Your task to perform on an android device: Open battery settings Image 0: 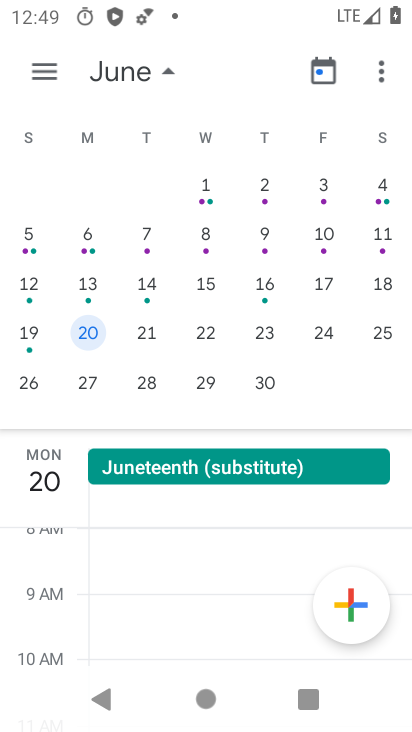
Step 0: press home button
Your task to perform on an android device: Open battery settings Image 1: 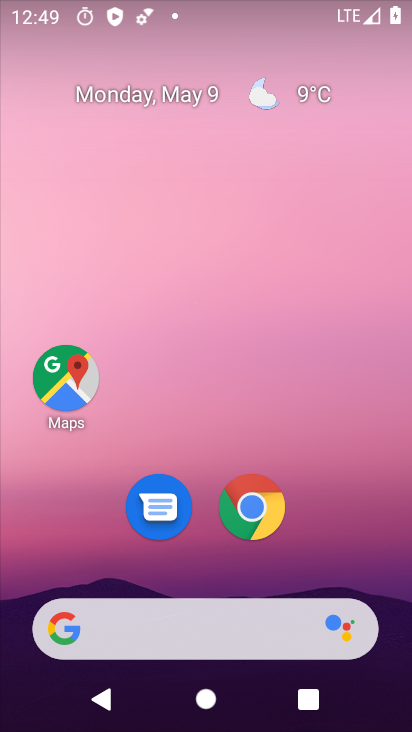
Step 1: drag from (230, 645) to (227, 123)
Your task to perform on an android device: Open battery settings Image 2: 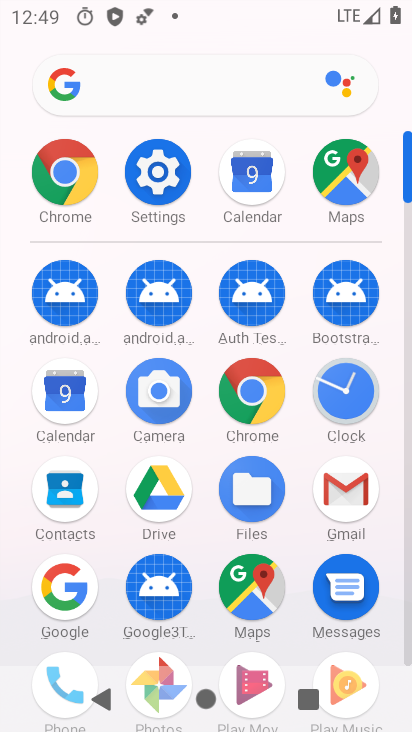
Step 2: click (160, 175)
Your task to perform on an android device: Open battery settings Image 3: 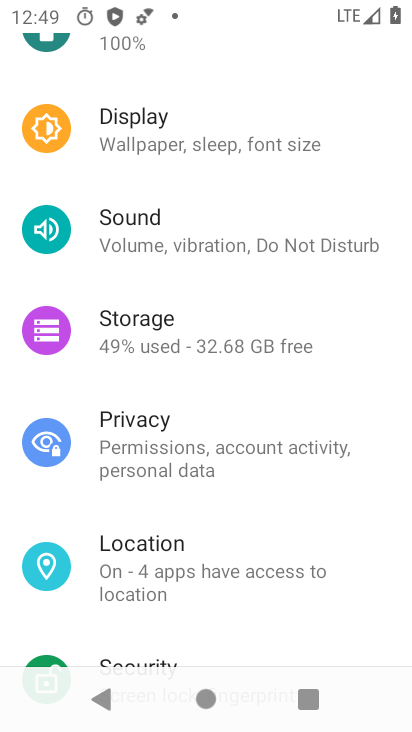
Step 3: drag from (357, 166) to (327, 636)
Your task to perform on an android device: Open battery settings Image 4: 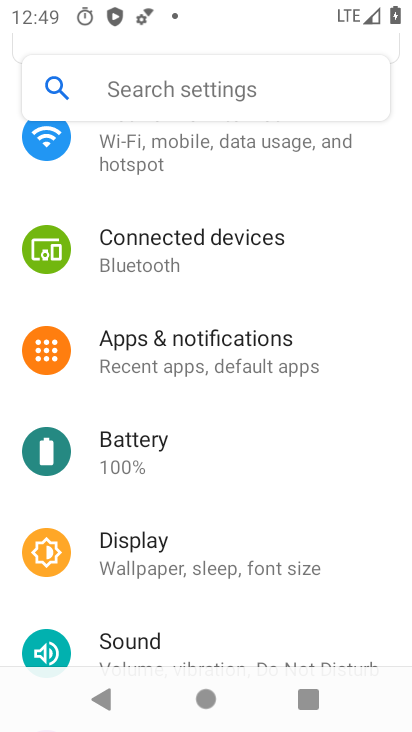
Step 4: click (118, 455)
Your task to perform on an android device: Open battery settings Image 5: 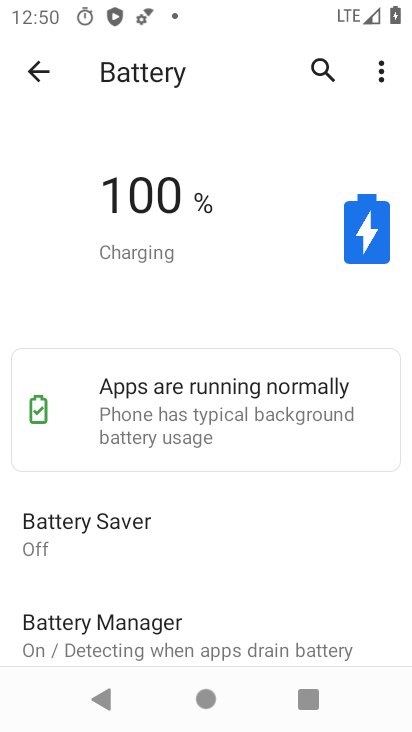
Step 5: task complete